Your task to perform on an android device: toggle notification dots Image 0: 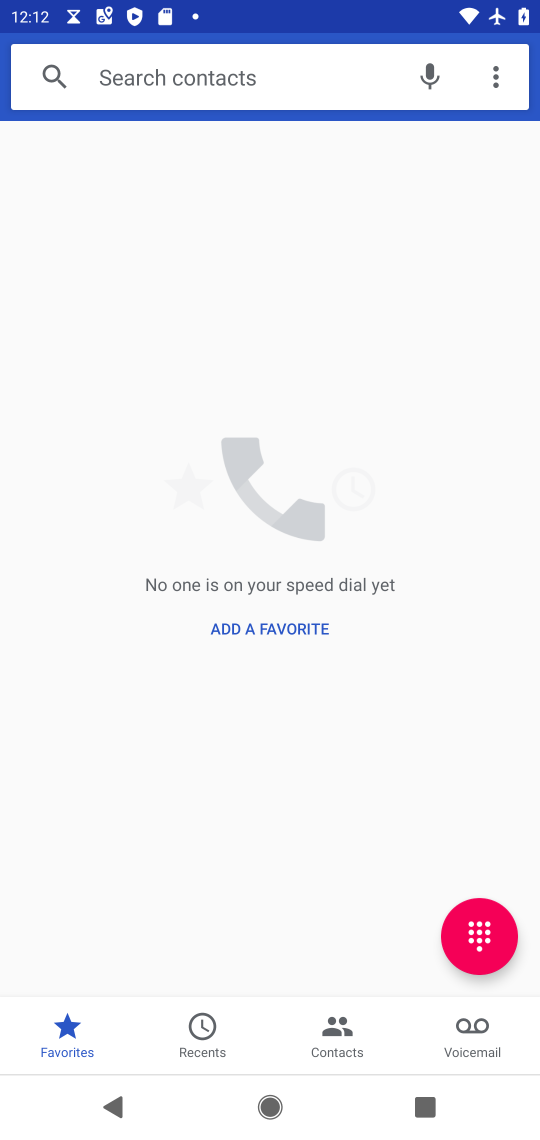
Step 0: press home button
Your task to perform on an android device: toggle notification dots Image 1: 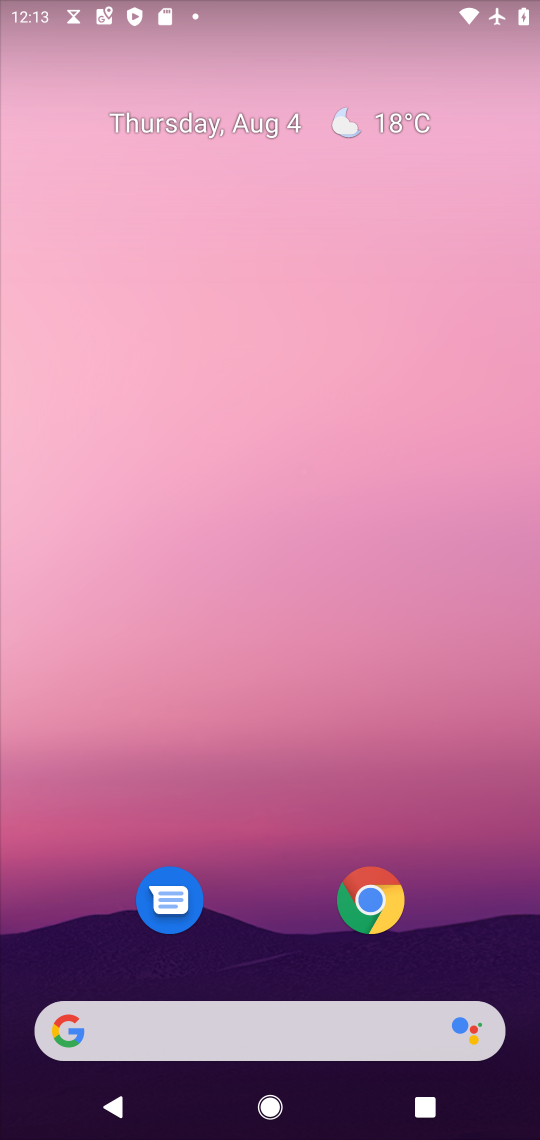
Step 1: drag from (276, 958) to (295, 122)
Your task to perform on an android device: toggle notification dots Image 2: 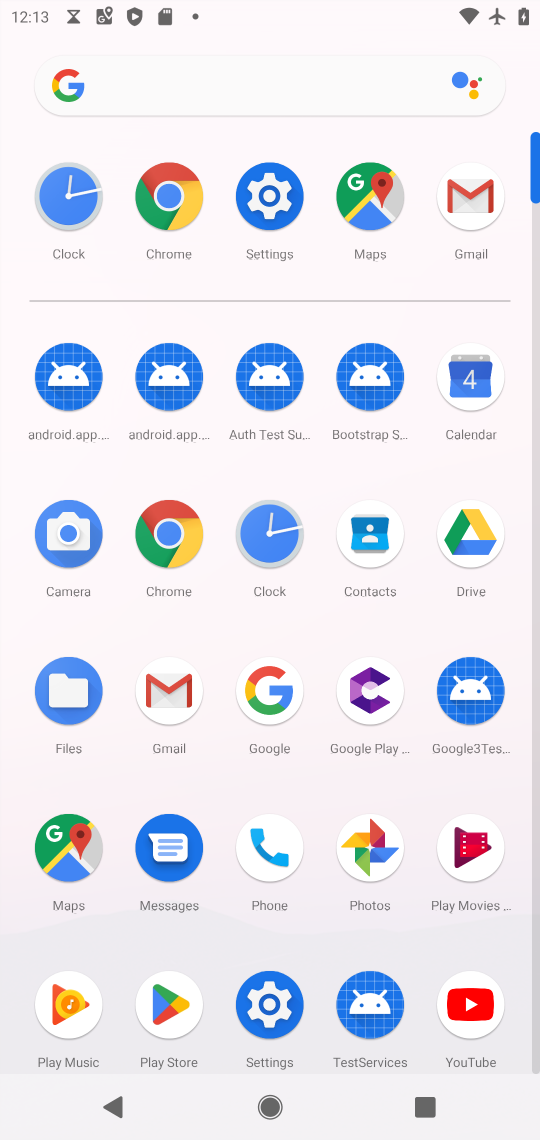
Step 2: click (286, 1012)
Your task to perform on an android device: toggle notification dots Image 3: 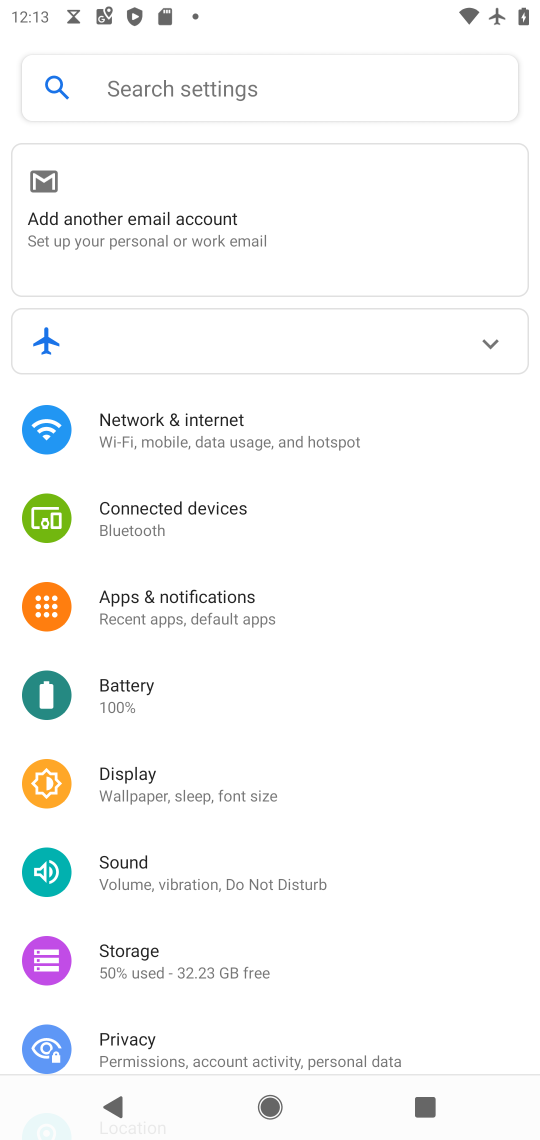
Step 3: click (203, 615)
Your task to perform on an android device: toggle notification dots Image 4: 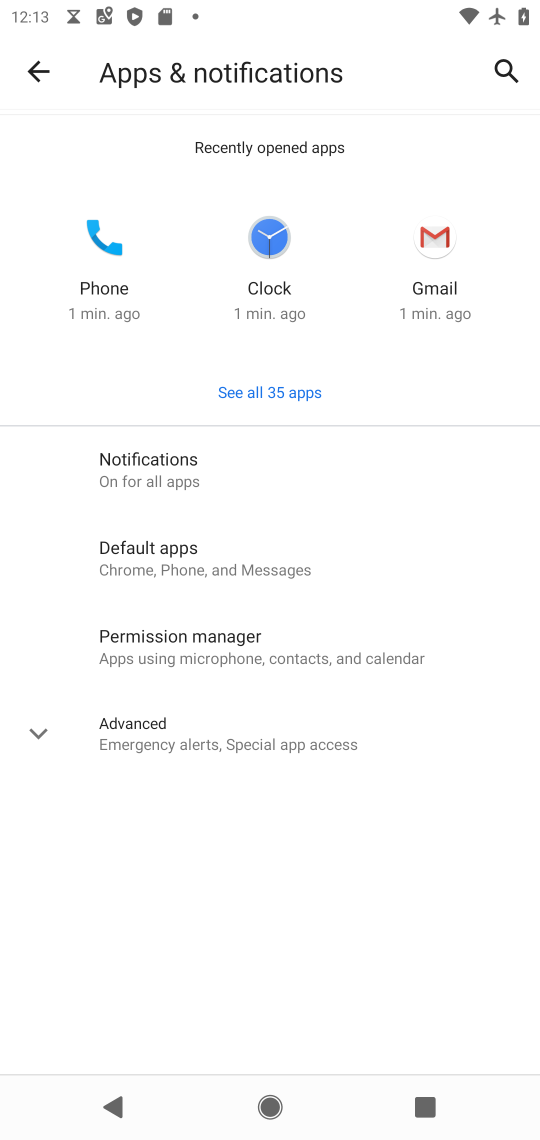
Step 4: click (125, 459)
Your task to perform on an android device: toggle notification dots Image 5: 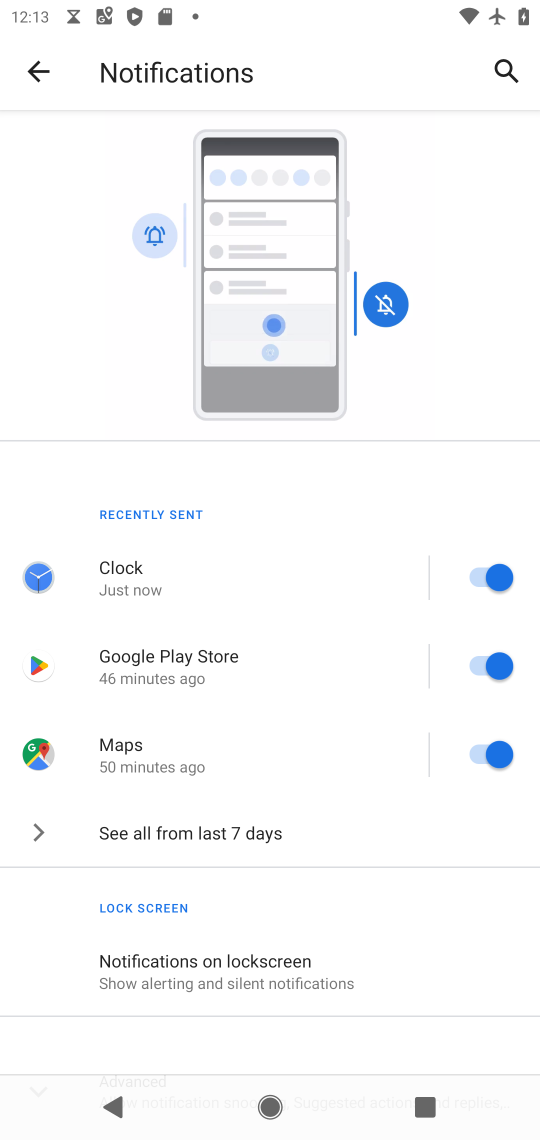
Step 5: drag from (426, 928) to (441, 335)
Your task to perform on an android device: toggle notification dots Image 6: 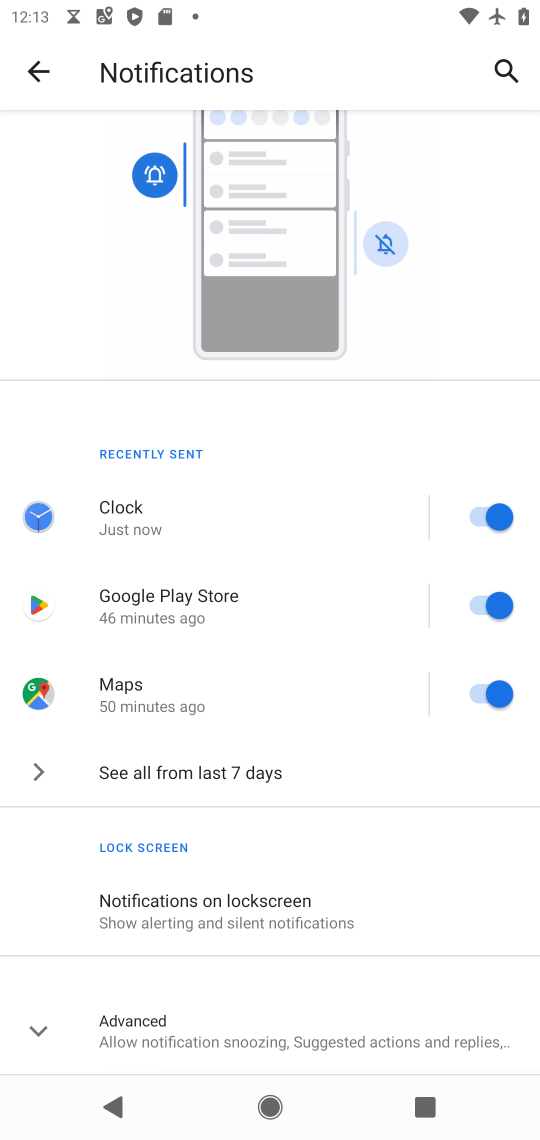
Step 6: click (141, 1038)
Your task to perform on an android device: toggle notification dots Image 7: 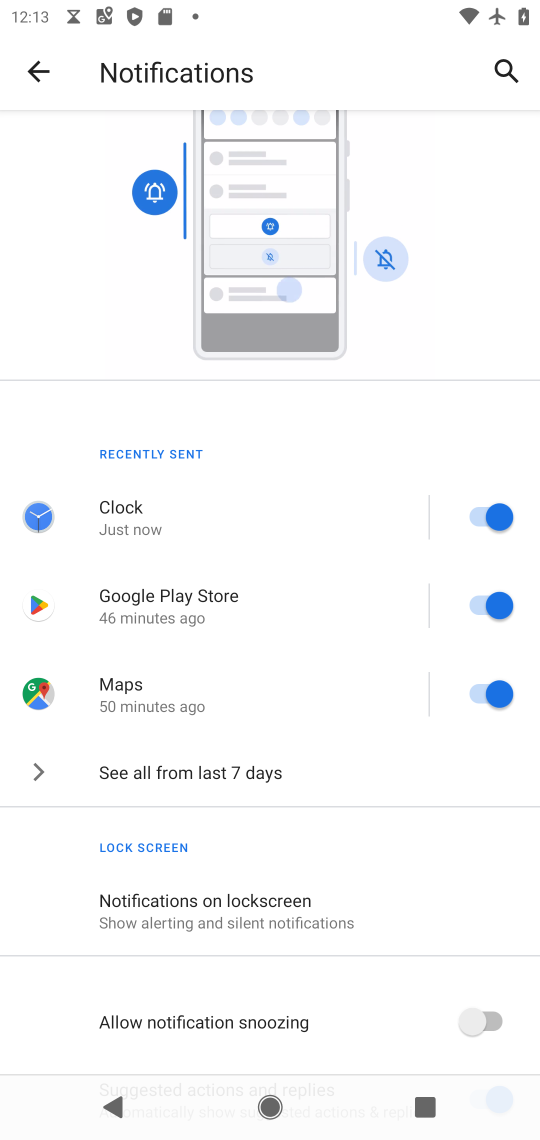
Step 7: drag from (379, 981) to (407, 358)
Your task to perform on an android device: toggle notification dots Image 8: 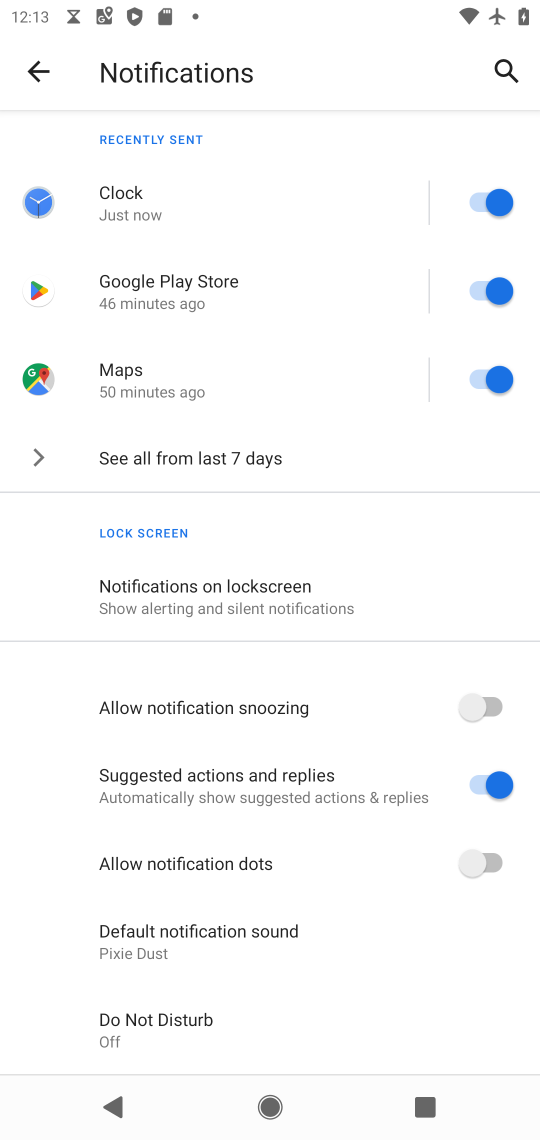
Step 8: click (475, 859)
Your task to perform on an android device: toggle notification dots Image 9: 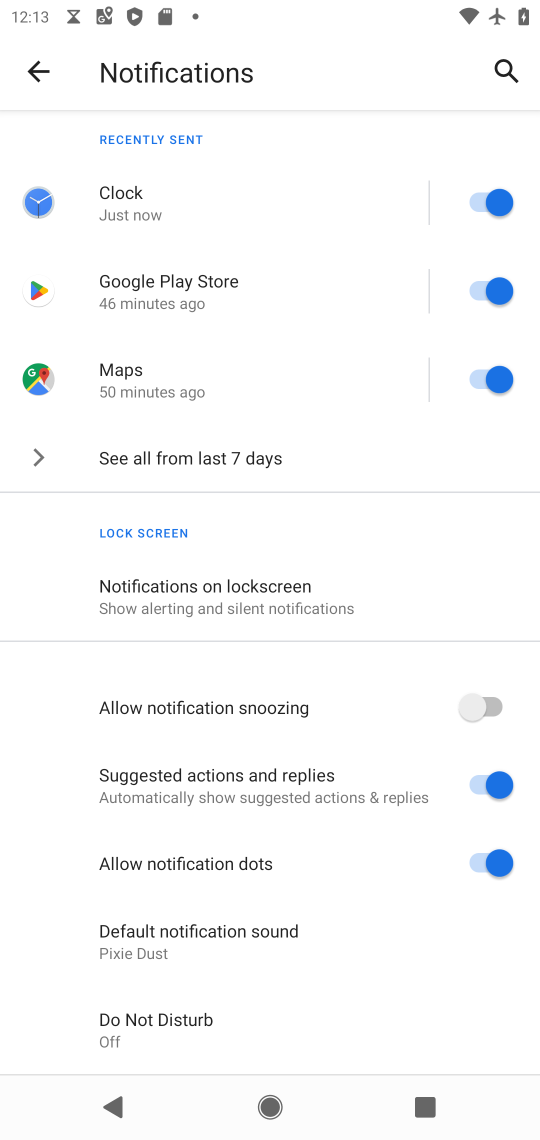
Step 9: task complete